Your task to perform on an android device: Go to location settings Image 0: 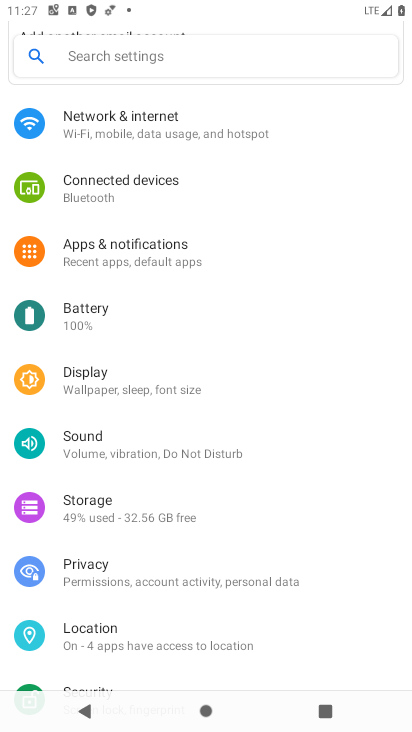
Step 0: press home button
Your task to perform on an android device: Go to location settings Image 1: 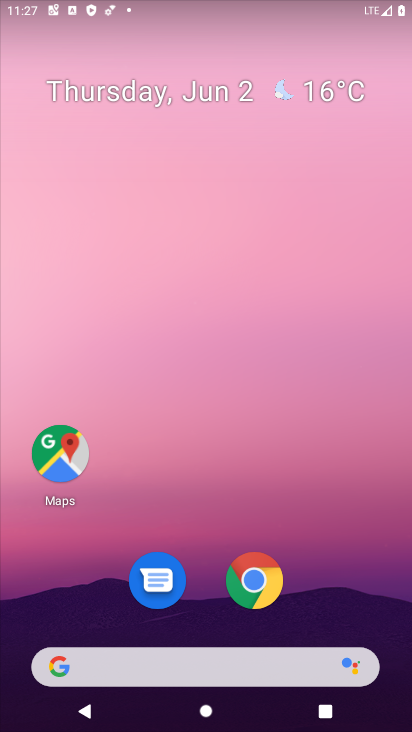
Step 1: drag from (200, 492) to (236, 359)
Your task to perform on an android device: Go to location settings Image 2: 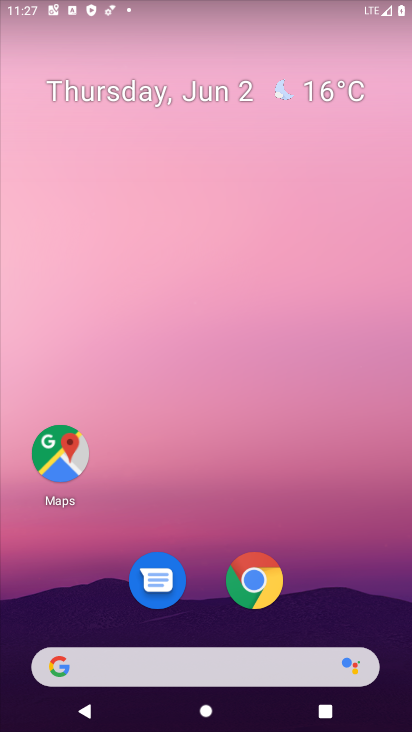
Step 2: drag from (193, 598) to (255, 166)
Your task to perform on an android device: Go to location settings Image 3: 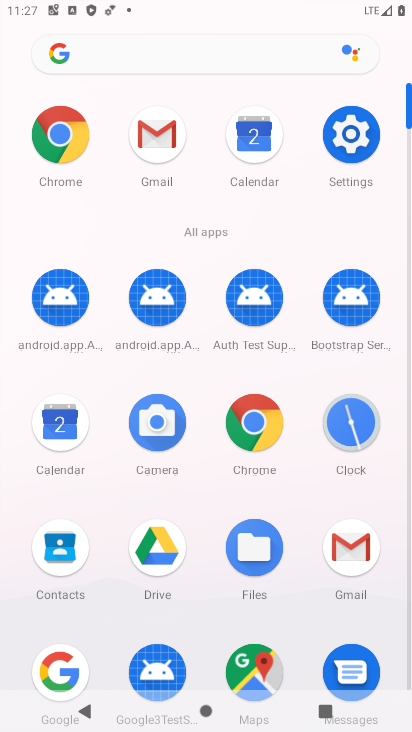
Step 3: click (369, 151)
Your task to perform on an android device: Go to location settings Image 4: 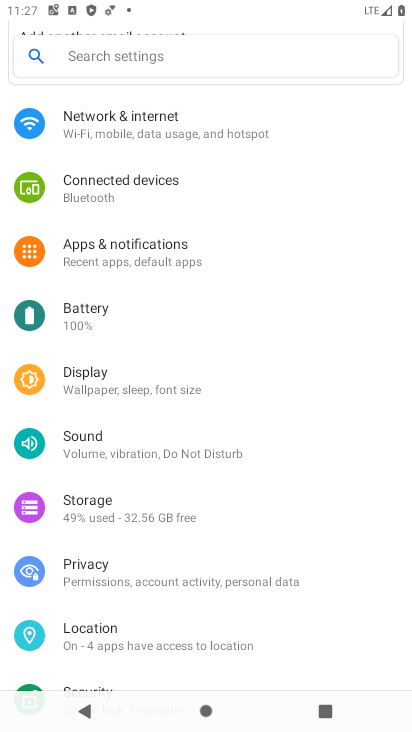
Step 4: click (125, 631)
Your task to perform on an android device: Go to location settings Image 5: 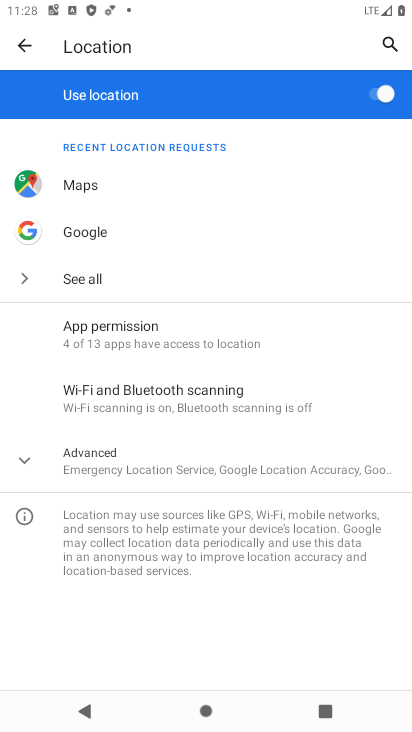
Step 5: click (187, 467)
Your task to perform on an android device: Go to location settings Image 6: 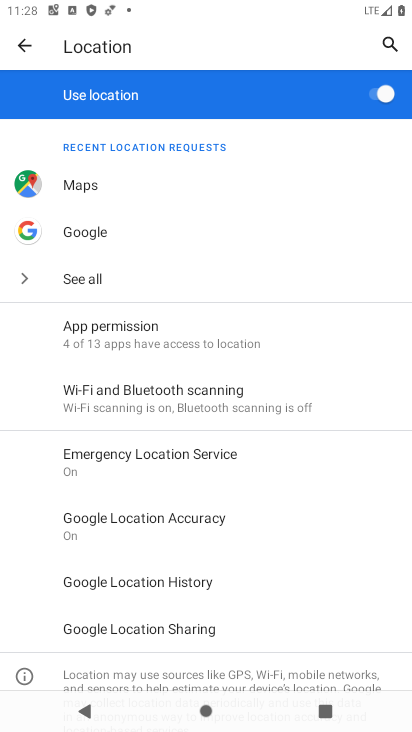
Step 6: task complete